Your task to perform on an android device: Open accessibility settings Image 0: 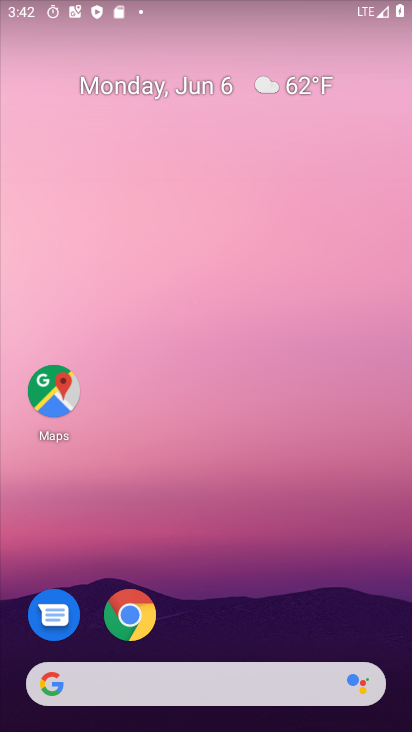
Step 0: drag from (299, 675) to (339, 57)
Your task to perform on an android device: Open accessibility settings Image 1: 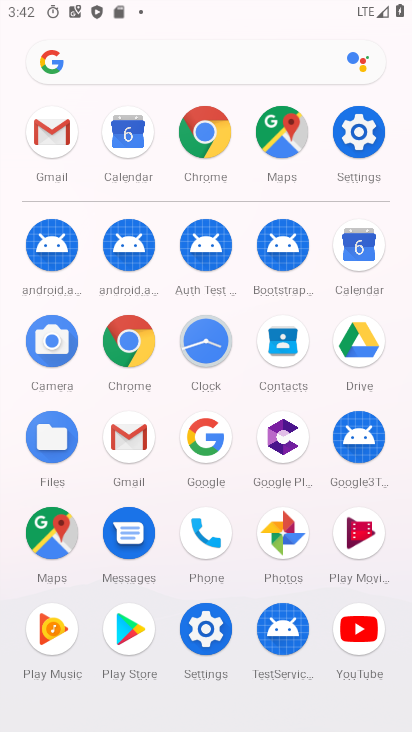
Step 1: click (376, 138)
Your task to perform on an android device: Open accessibility settings Image 2: 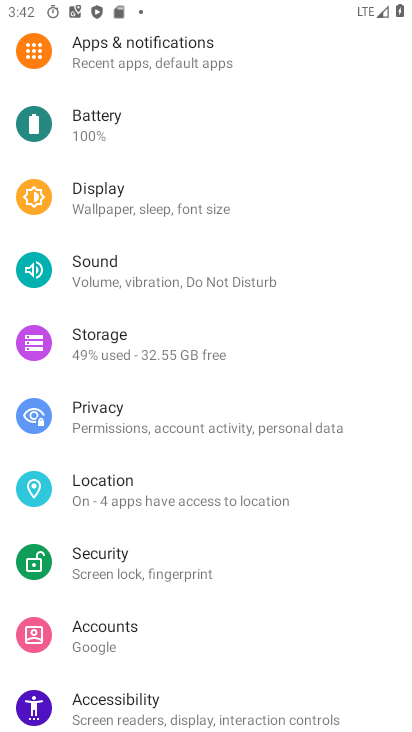
Step 2: click (186, 701)
Your task to perform on an android device: Open accessibility settings Image 3: 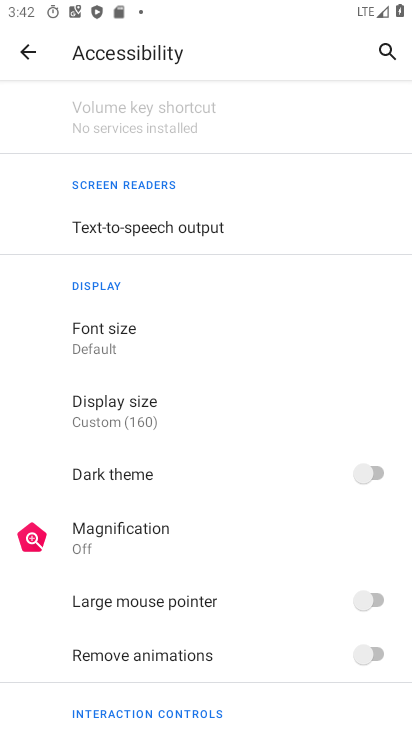
Step 3: task complete